Your task to perform on an android device: Open the calendar and show me this week's events? Image 0: 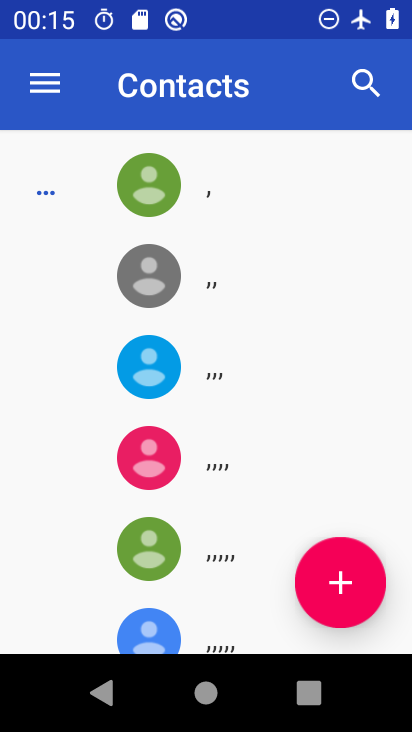
Step 0: press home button
Your task to perform on an android device: Open the calendar and show me this week's events? Image 1: 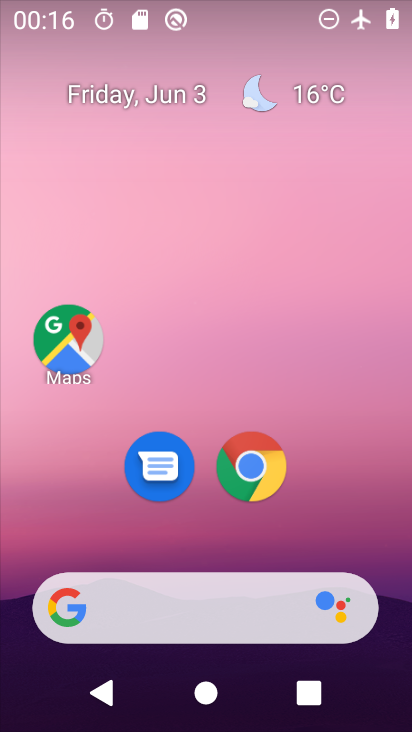
Step 1: drag from (202, 542) to (226, 291)
Your task to perform on an android device: Open the calendar and show me this week's events? Image 2: 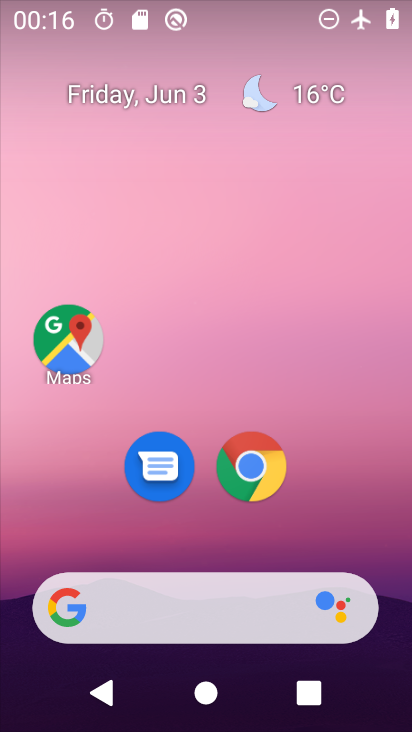
Step 2: drag from (190, 542) to (194, 243)
Your task to perform on an android device: Open the calendar and show me this week's events? Image 3: 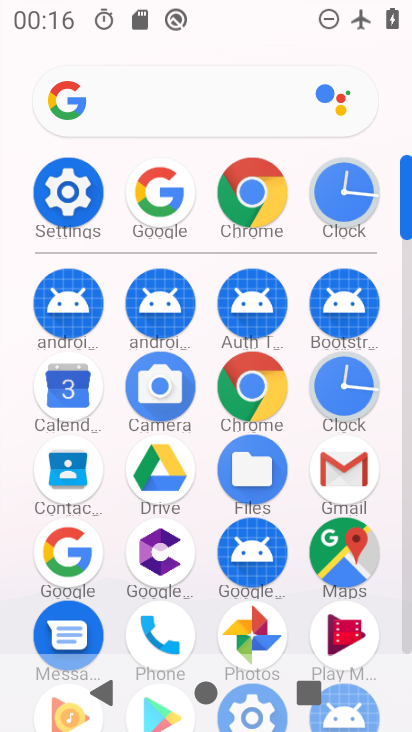
Step 3: click (73, 384)
Your task to perform on an android device: Open the calendar and show me this week's events? Image 4: 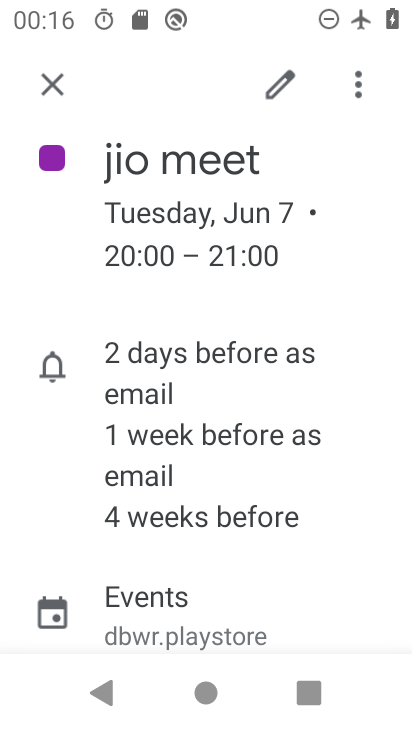
Step 4: click (60, 87)
Your task to perform on an android device: Open the calendar and show me this week's events? Image 5: 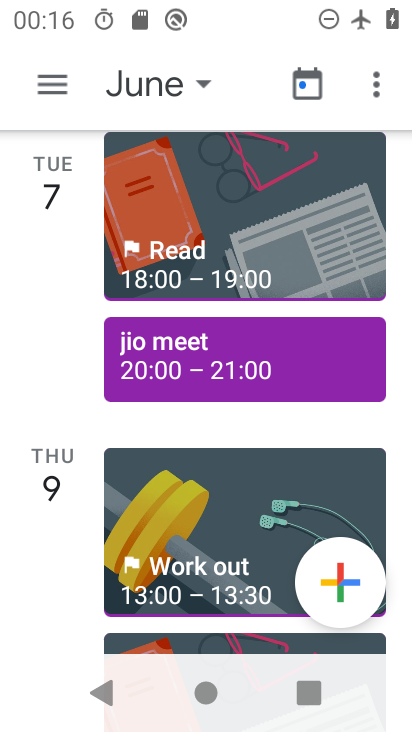
Step 5: click (177, 74)
Your task to perform on an android device: Open the calendar and show me this week's events? Image 6: 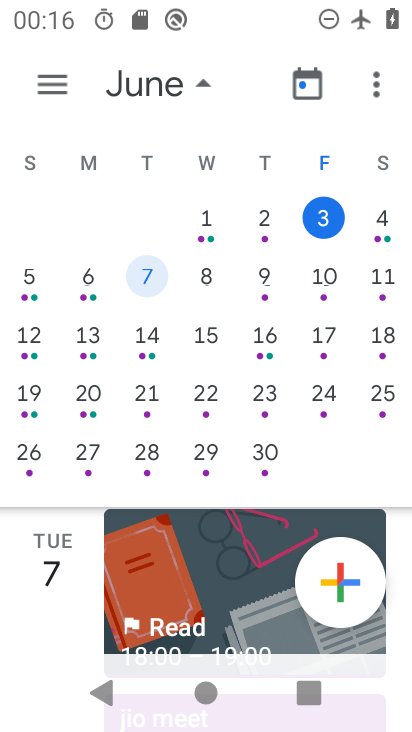
Step 6: click (379, 229)
Your task to perform on an android device: Open the calendar and show me this week's events? Image 7: 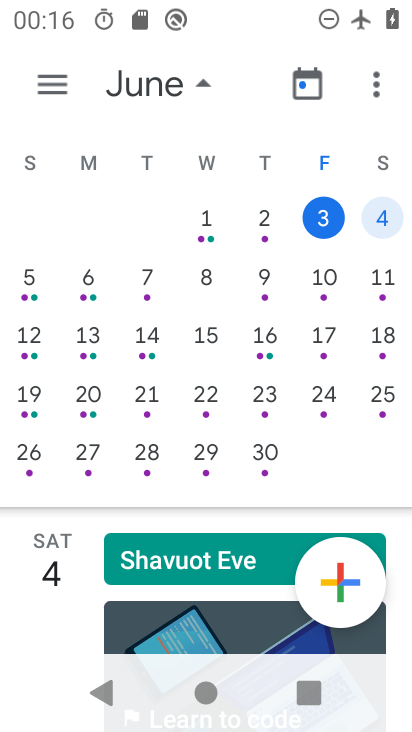
Step 7: task complete